Your task to perform on an android device: turn on translation in the chrome app Image 0: 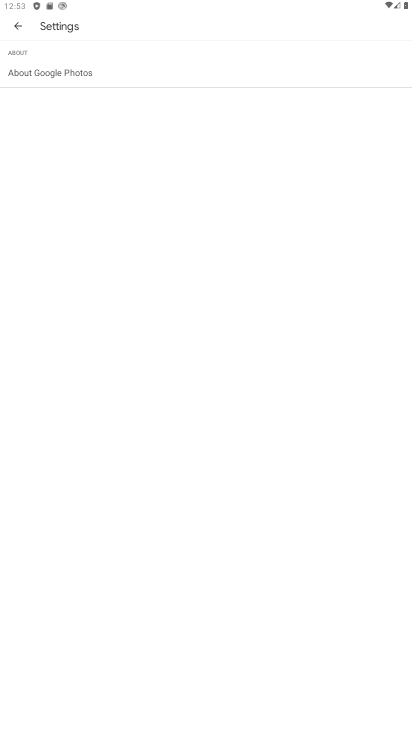
Step 0: press home button
Your task to perform on an android device: turn on translation in the chrome app Image 1: 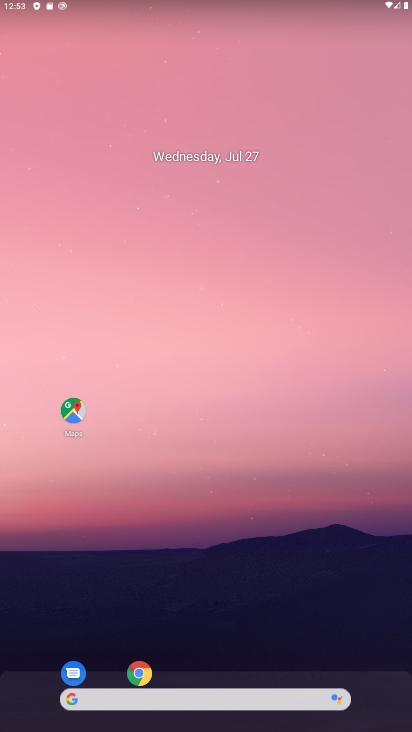
Step 1: click (140, 677)
Your task to perform on an android device: turn on translation in the chrome app Image 2: 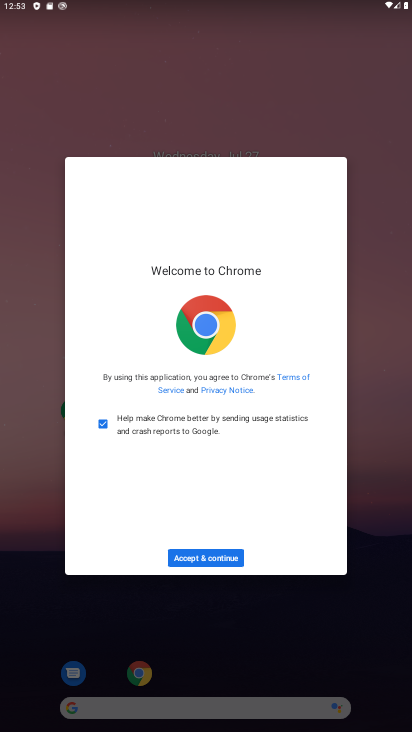
Step 2: click (233, 556)
Your task to perform on an android device: turn on translation in the chrome app Image 3: 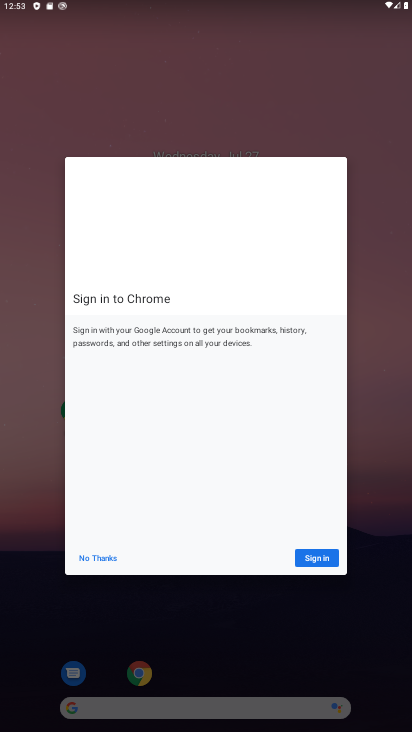
Step 3: click (106, 558)
Your task to perform on an android device: turn on translation in the chrome app Image 4: 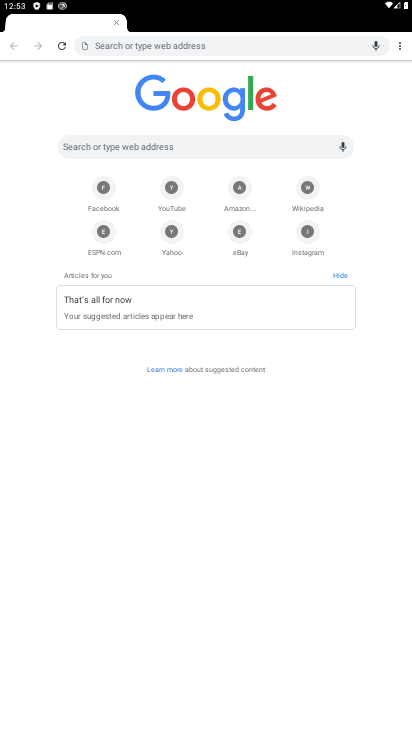
Step 4: click (396, 47)
Your task to perform on an android device: turn on translation in the chrome app Image 5: 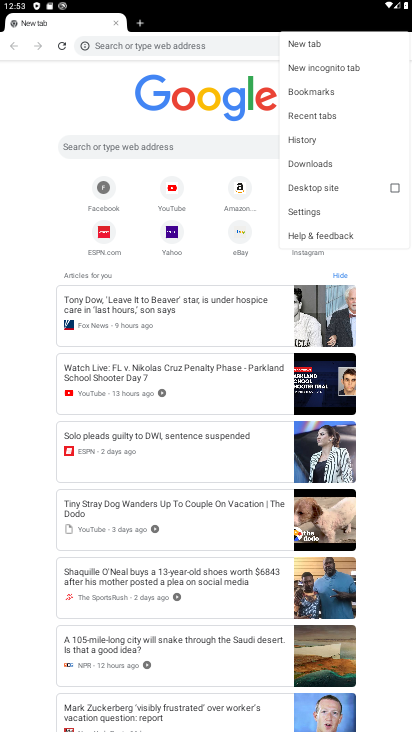
Step 5: click (319, 213)
Your task to perform on an android device: turn on translation in the chrome app Image 6: 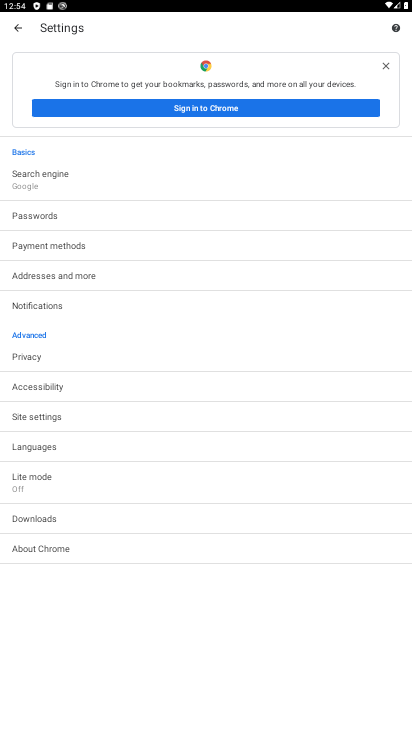
Step 6: click (62, 444)
Your task to perform on an android device: turn on translation in the chrome app Image 7: 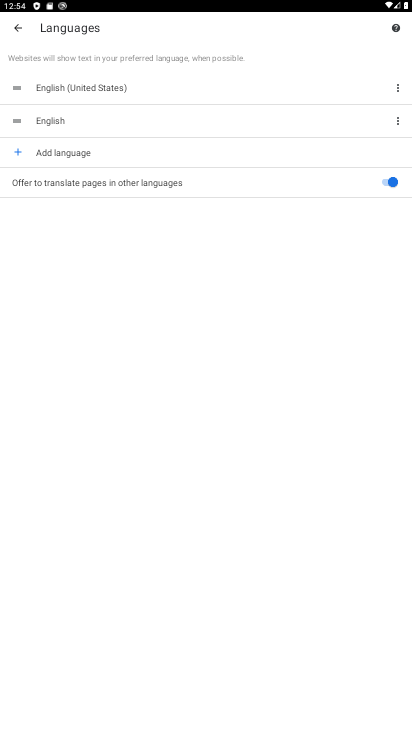
Step 7: task complete